Your task to perform on an android device: find which apps use the phone's location Image 0: 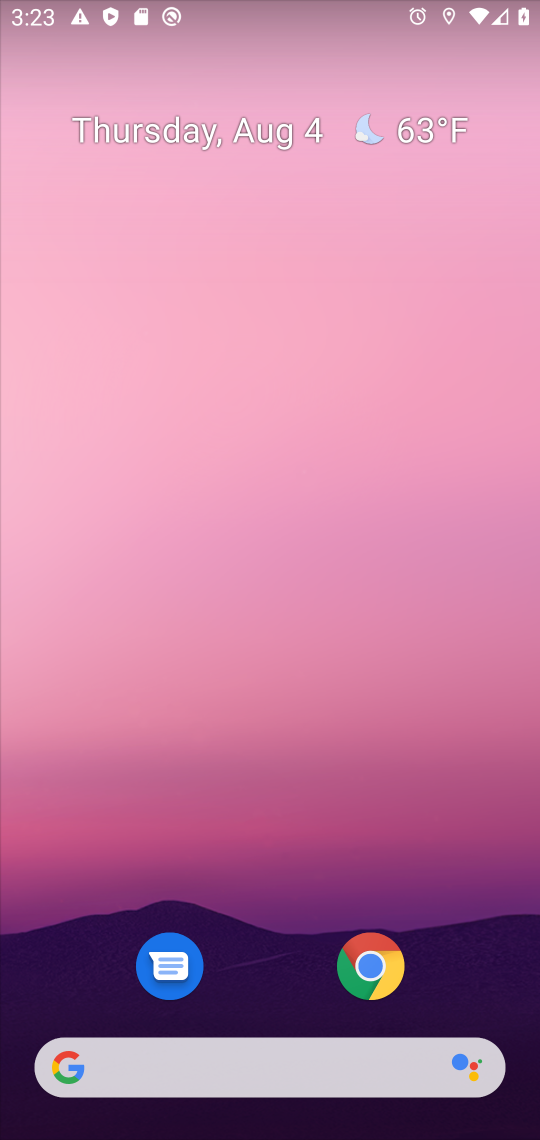
Step 0: press home button
Your task to perform on an android device: find which apps use the phone's location Image 1: 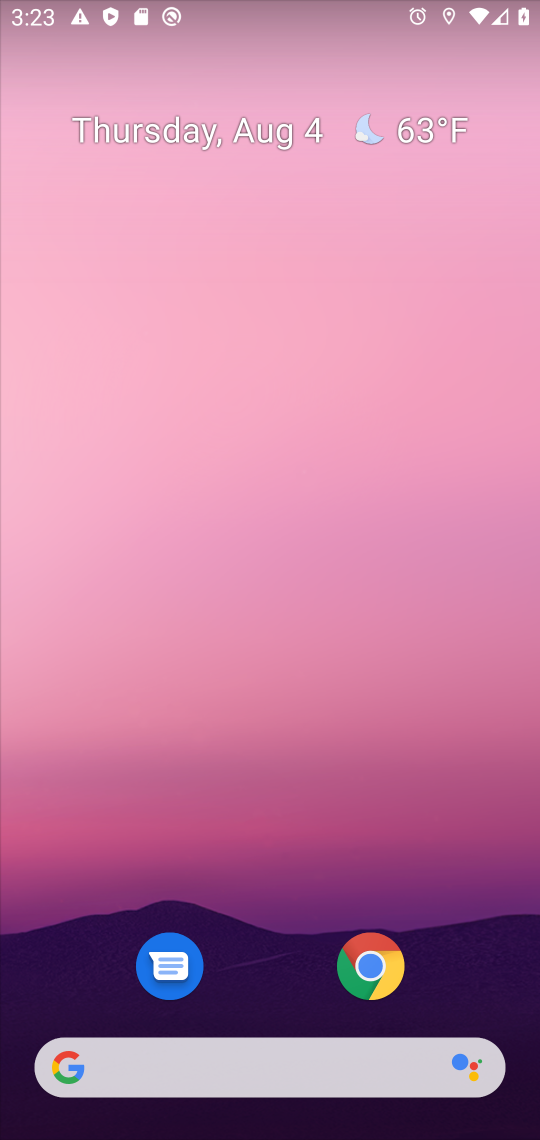
Step 1: drag from (263, 979) to (274, 64)
Your task to perform on an android device: find which apps use the phone's location Image 2: 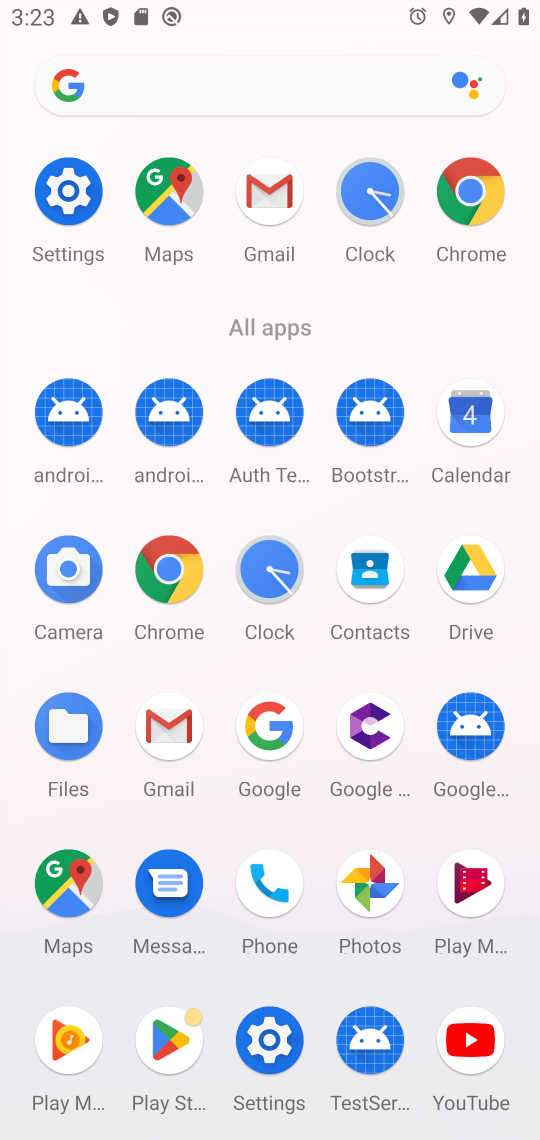
Step 2: click (71, 197)
Your task to perform on an android device: find which apps use the phone's location Image 3: 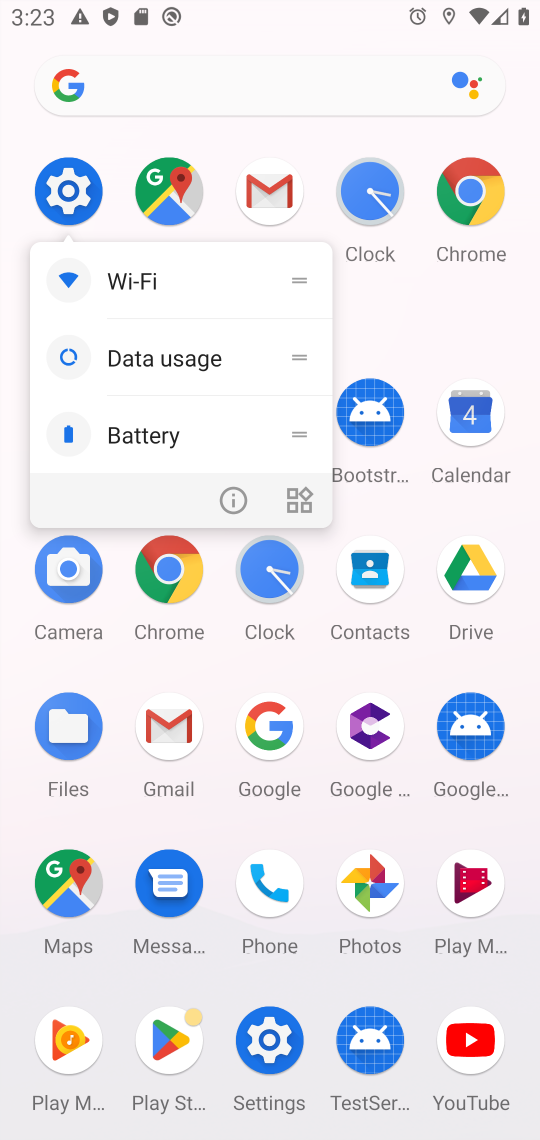
Step 3: click (71, 197)
Your task to perform on an android device: find which apps use the phone's location Image 4: 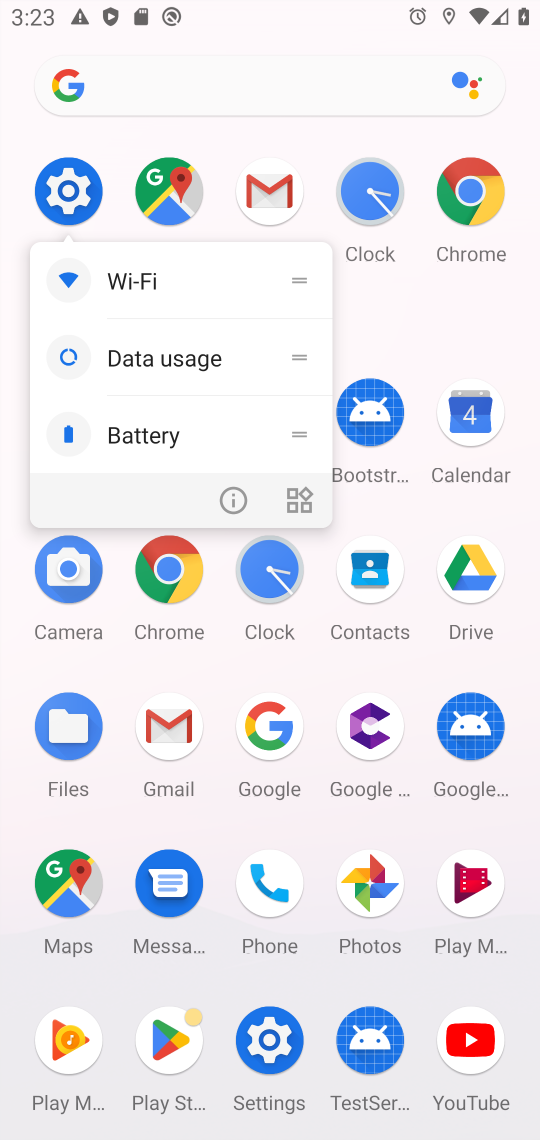
Step 4: click (71, 197)
Your task to perform on an android device: find which apps use the phone's location Image 5: 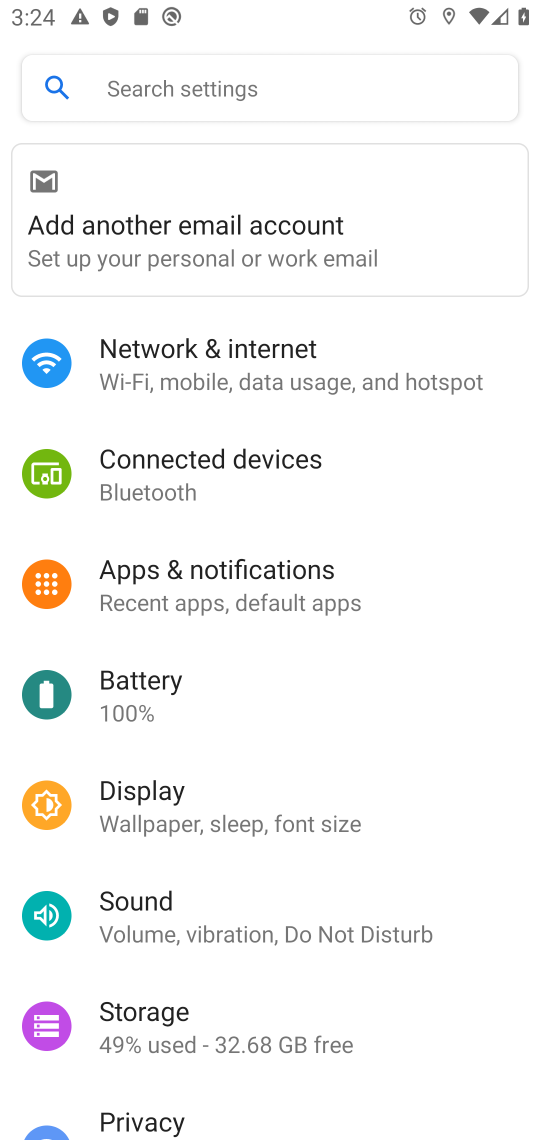
Step 5: drag from (422, 1039) to (352, 286)
Your task to perform on an android device: find which apps use the phone's location Image 6: 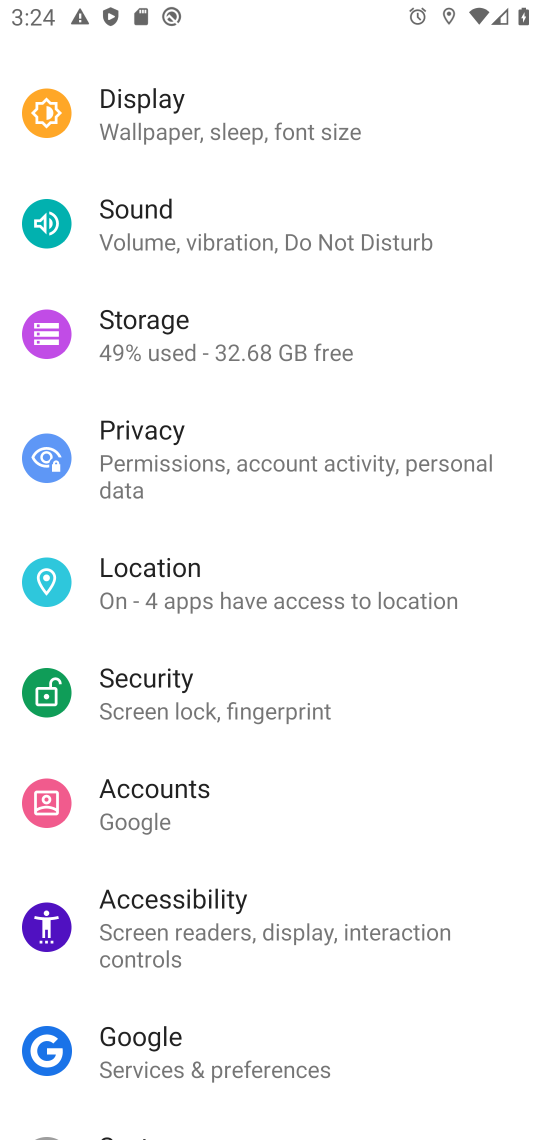
Step 6: click (135, 595)
Your task to perform on an android device: find which apps use the phone's location Image 7: 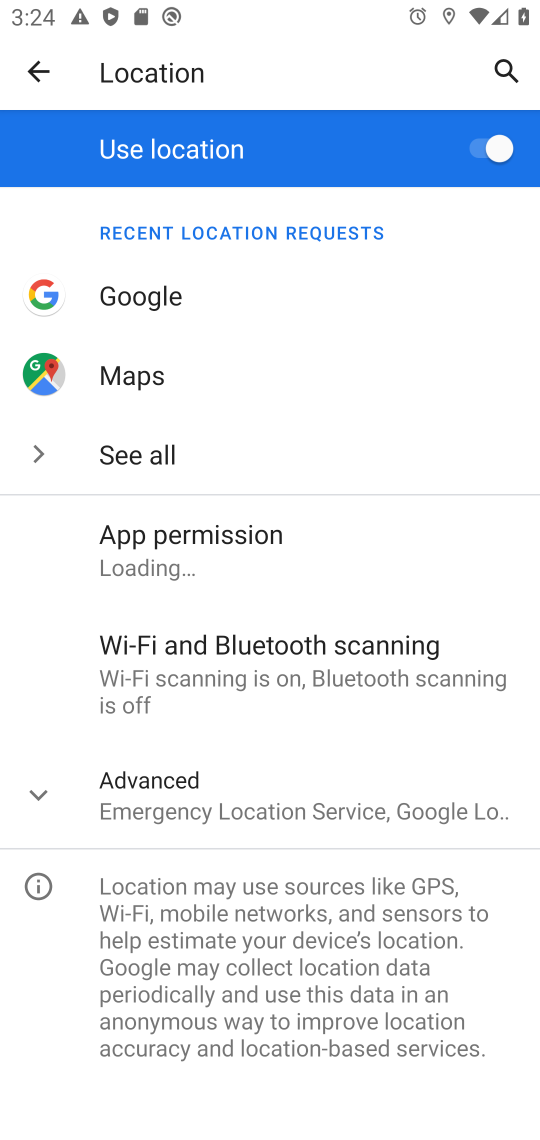
Step 7: click (214, 559)
Your task to perform on an android device: find which apps use the phone's location Image 8: 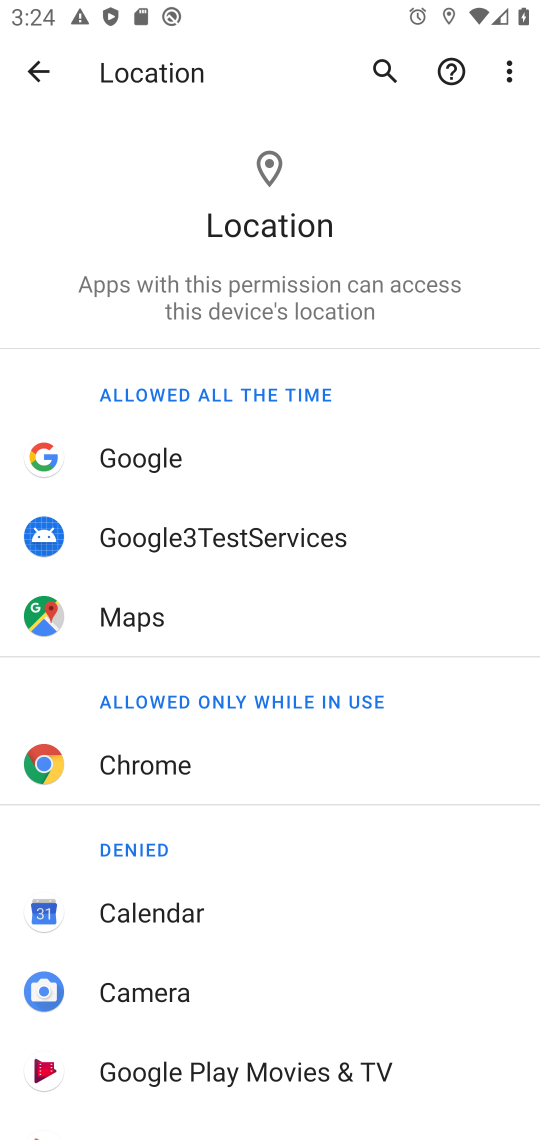
Step 8: task complete